Your task to perform on an android device: Open CNN.com Image 0: 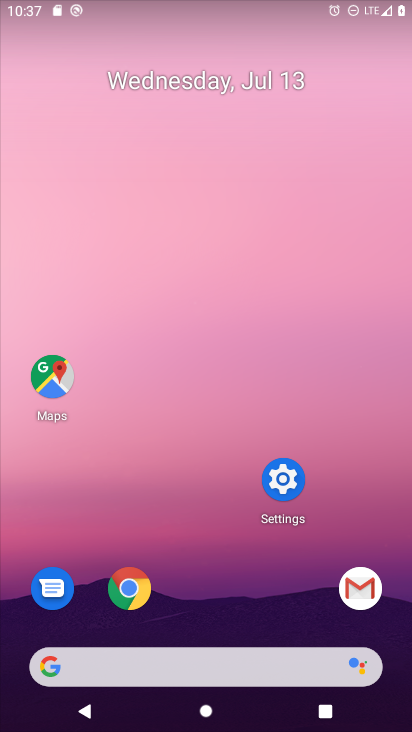
Step 0: click (143, 593)
Your task to perform on an android device: Open CNN.com Image 1: 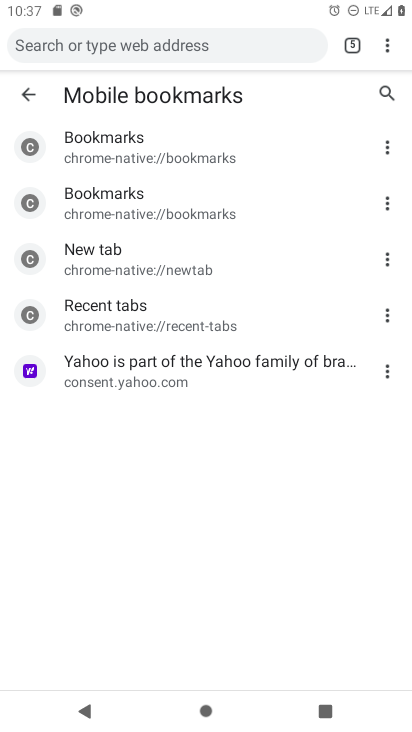
Step 1: click (148, 39)
Your task to perform on an android device: Open CNN.com Image 2: 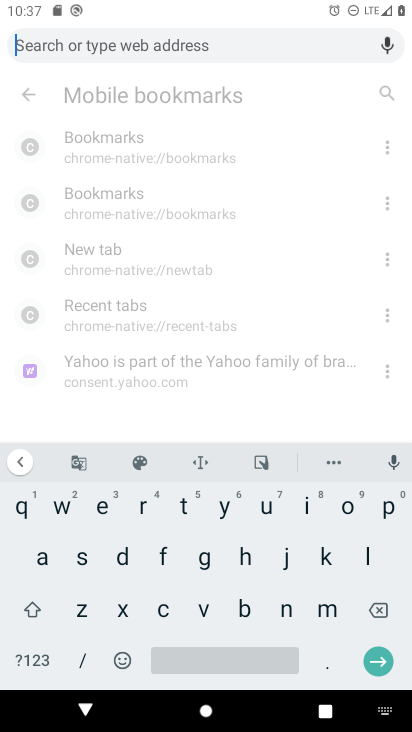
Step 2: click (157, 599)
Your task to perform on an android device: Open CNN.com Image 3: 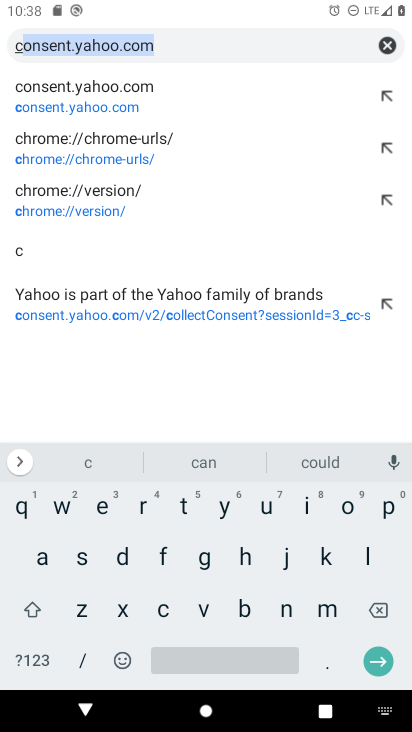
Step 3: click (286, 614)
Your task to perform on an android device: Open CNN.com Image 4: 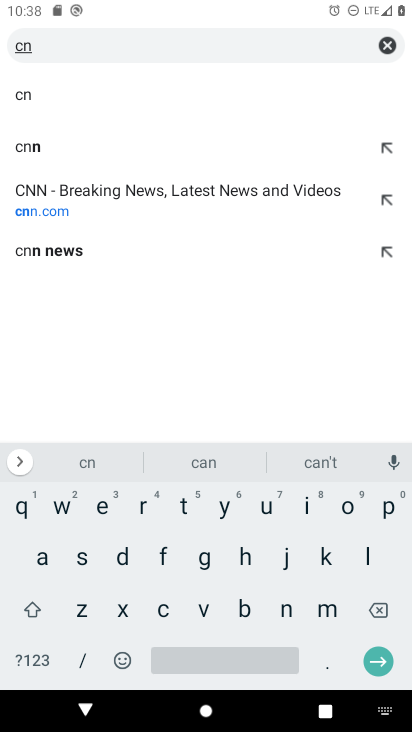
Step 4: click (53, 143)
Your task to perform on an android device: Open CNN.com Image 5: 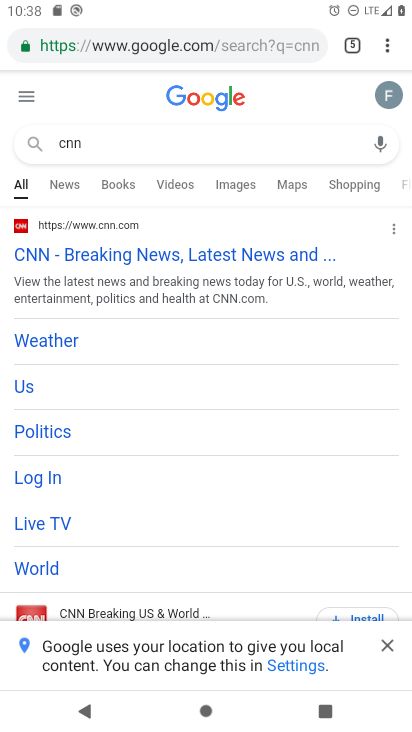
Step 5: click (90, 260)
Your task to perform on an android device: Open CNN.com Image 6: 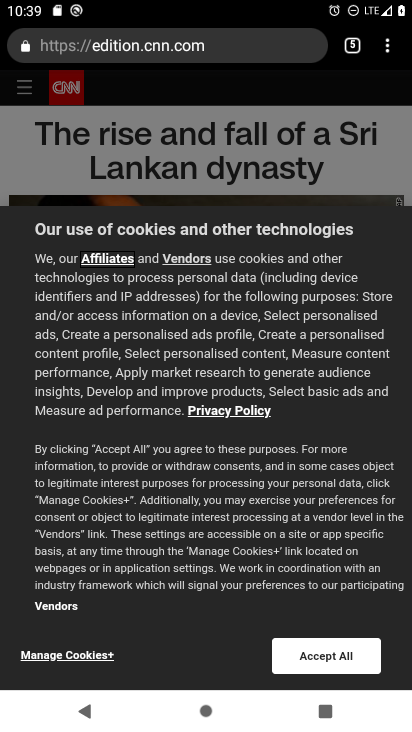
Step 6: click (329, 652)
Your task to perform on an android device: Open CNN.com Image 7: 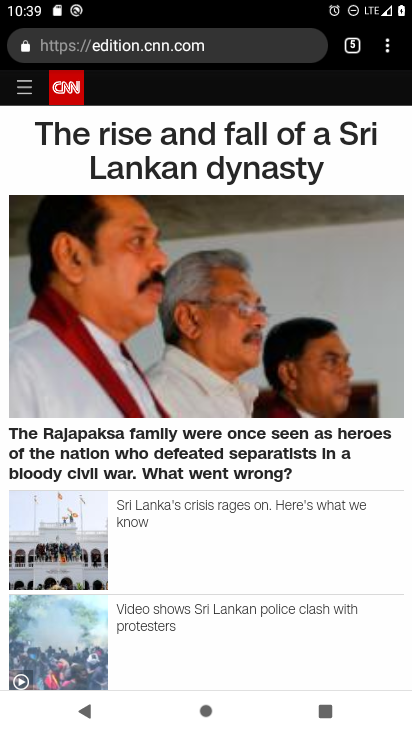
Step 7: task complete